Your task to perform on an android device: Search for "panasonic triple a" on ebay, select the first entry, and add it to the cart. Image 0: 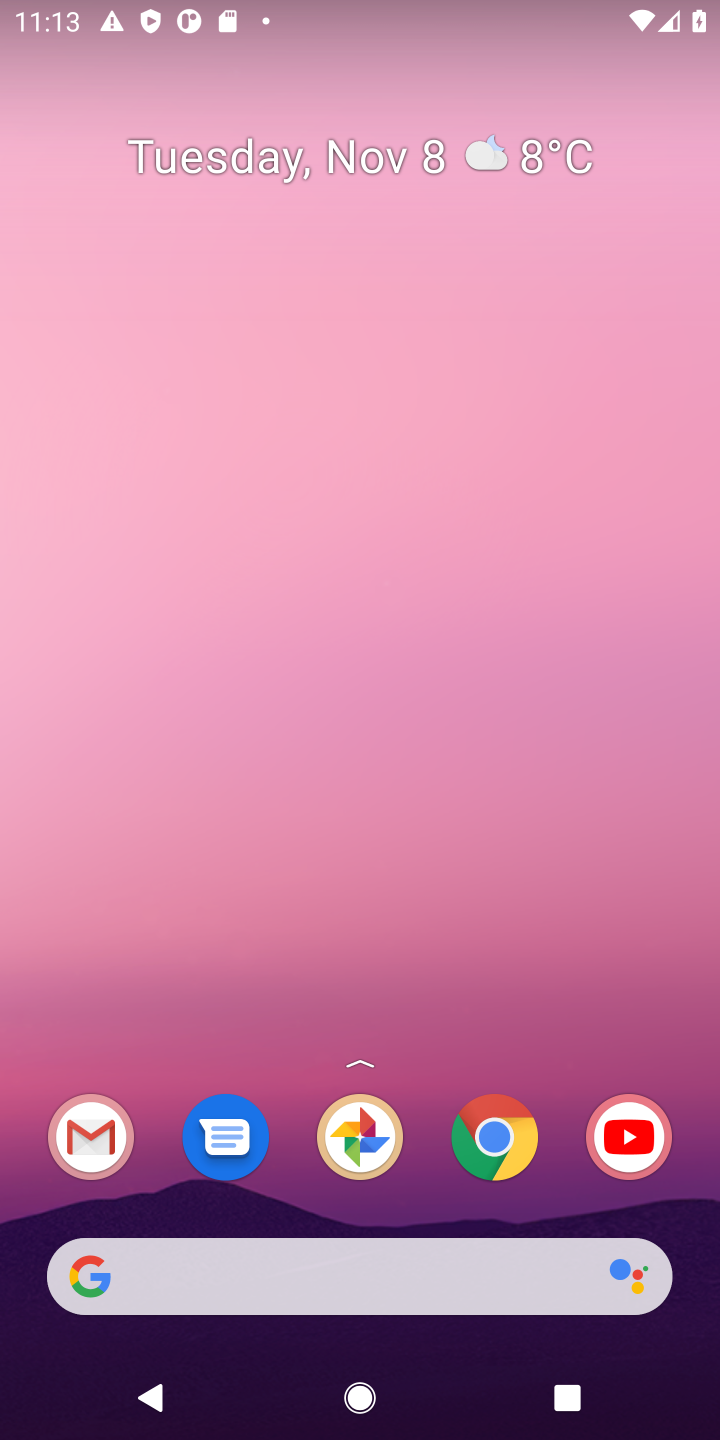
Step 0: click (476, 1139)
Your task to perform on an android device: Search for "panasonic triple a" on ebay, select the first entry, and add it to the cart. Image 1: 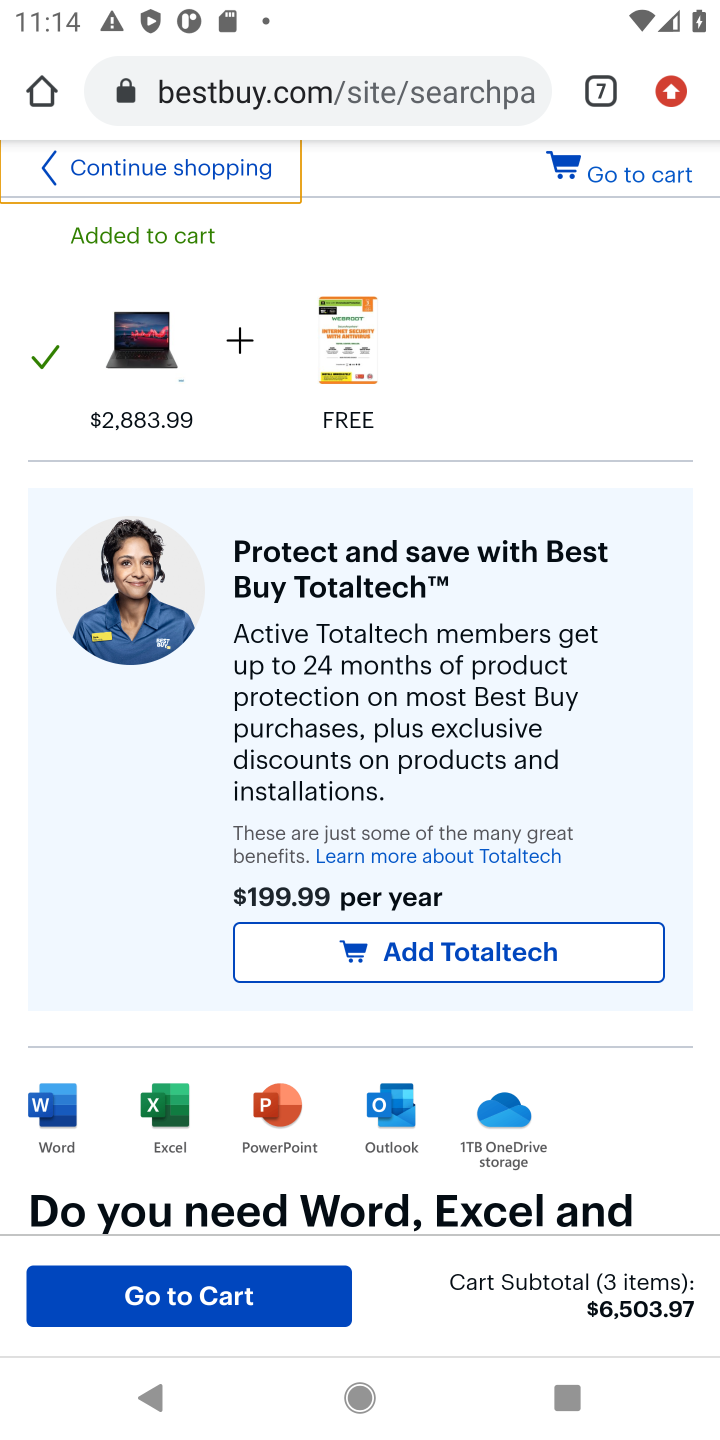
Step 1: click (601, 87)
Your task to perform on an android device: Search for "panasonic triple a" on ebay, select the first entry, and add it to the cart. Image 2: 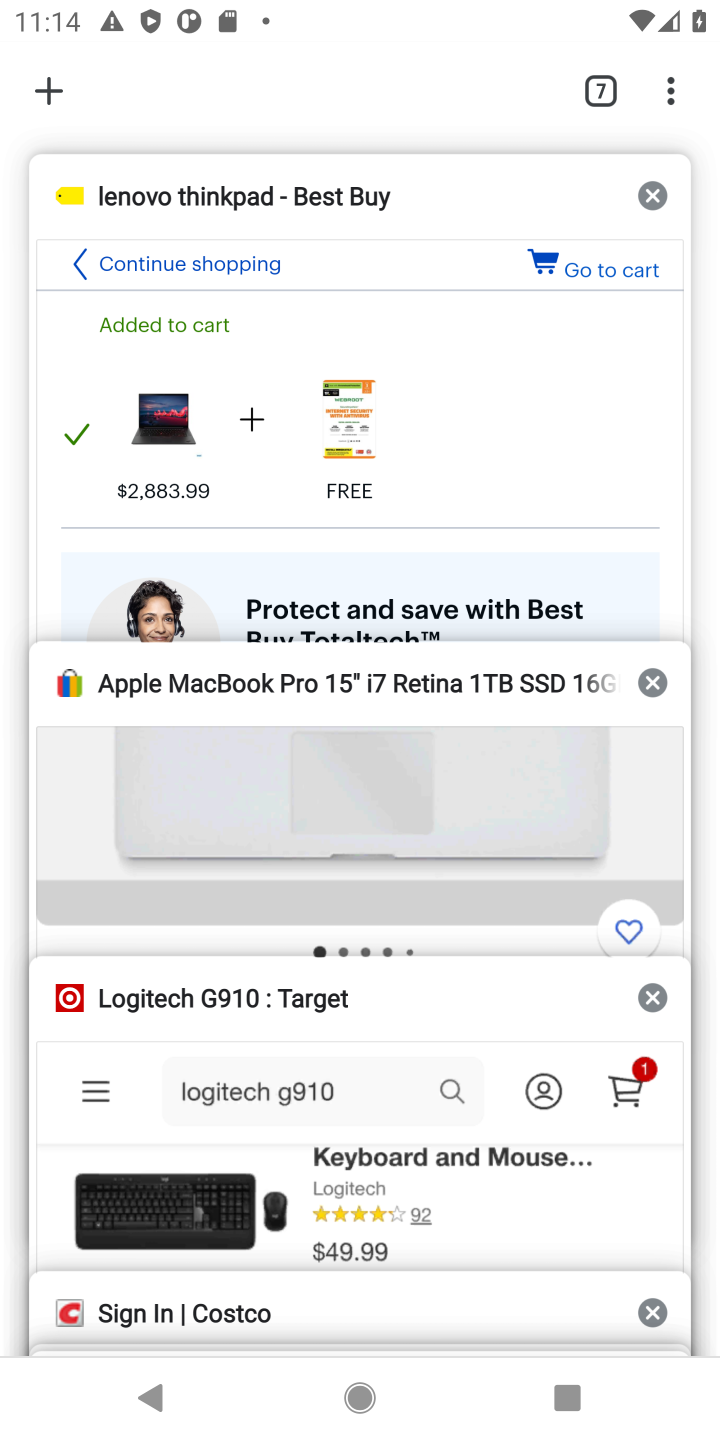
Step 2: click (353, 787)
Your task to perform on an android device: Search for "panasonic triple a" on ebay, select the first entry, and add it to the cart. Image 3: 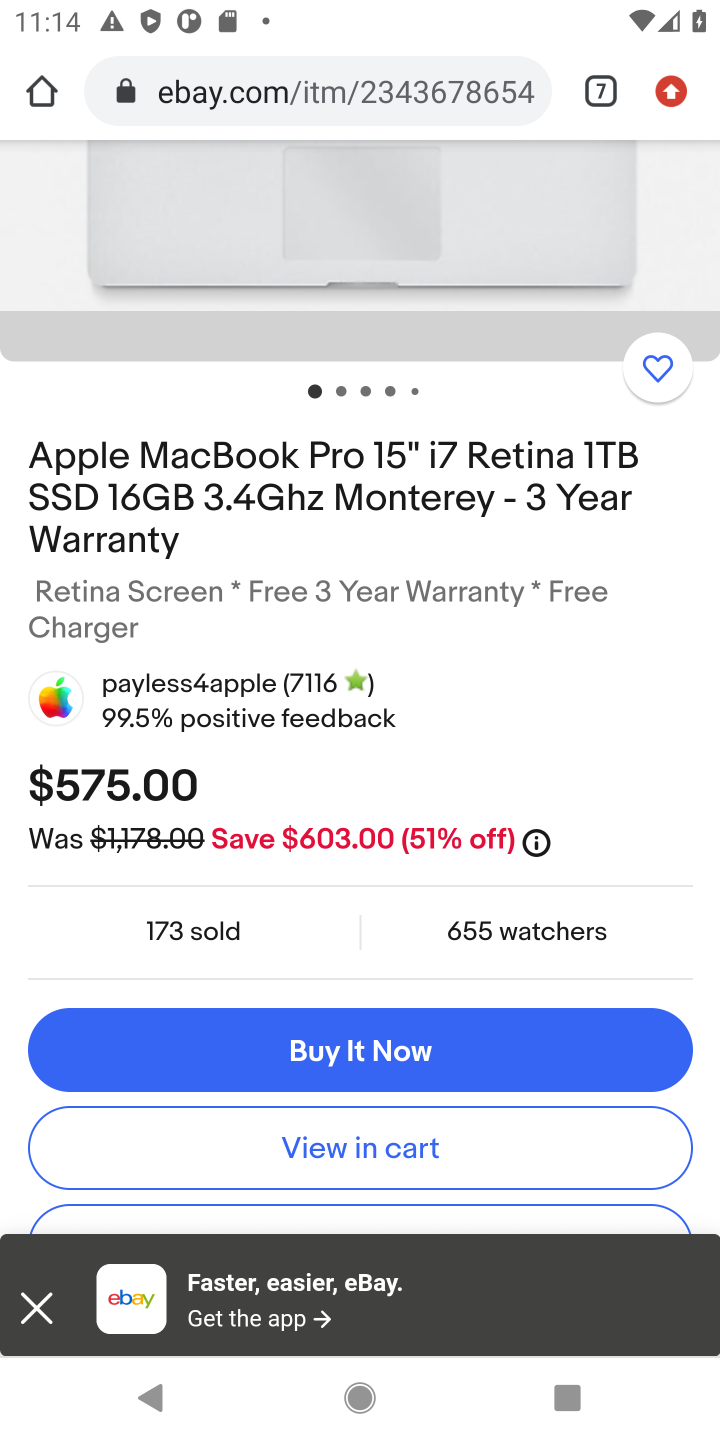
Step 3: drag from (493, 217) to (443, 737)
Your task to perform on an android device: Search for "panasonic triple a" on ebay, select the first entry, and add it to the cart. Image 4: 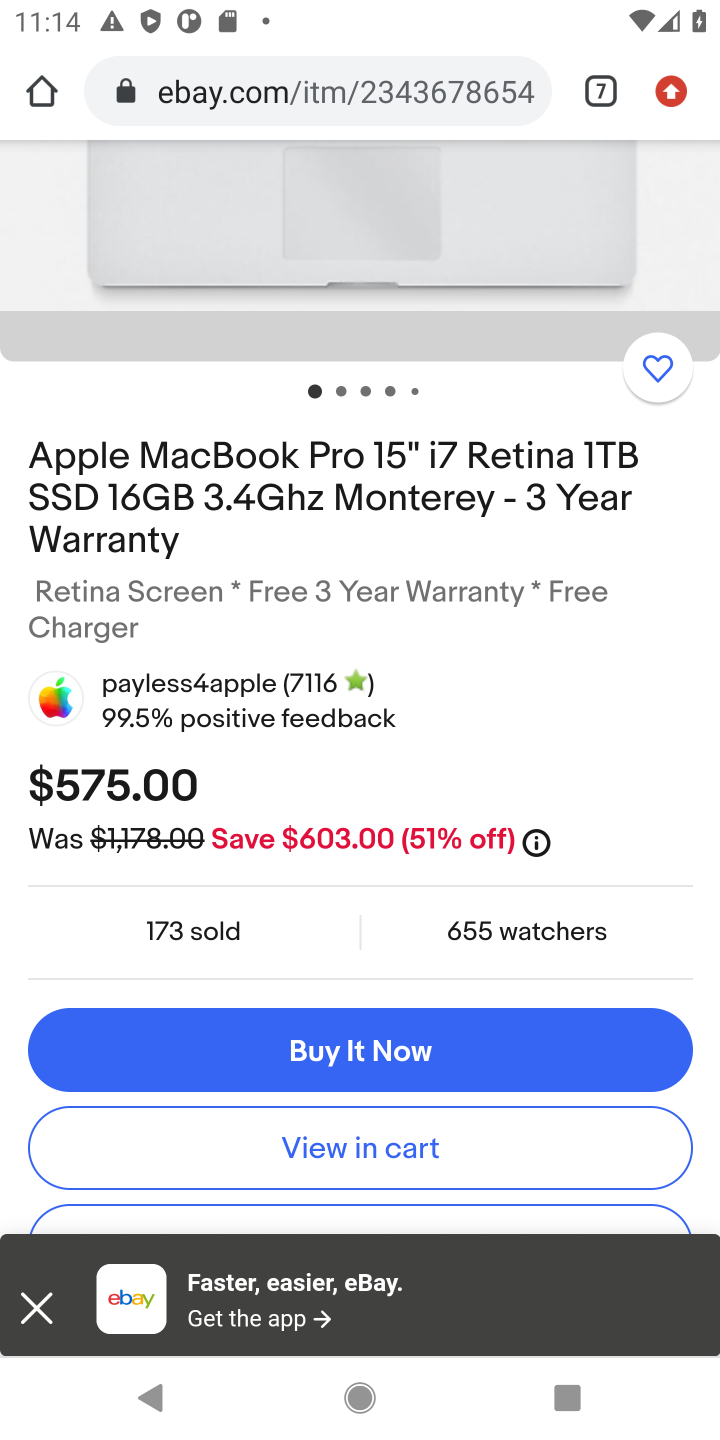
Step 4: drag from (533, 373) to (599, 1174)
Your task to perform on an android device: Search for "panasonic triple a" on ebay, select the first entry, and add it to the cart. Image 5: 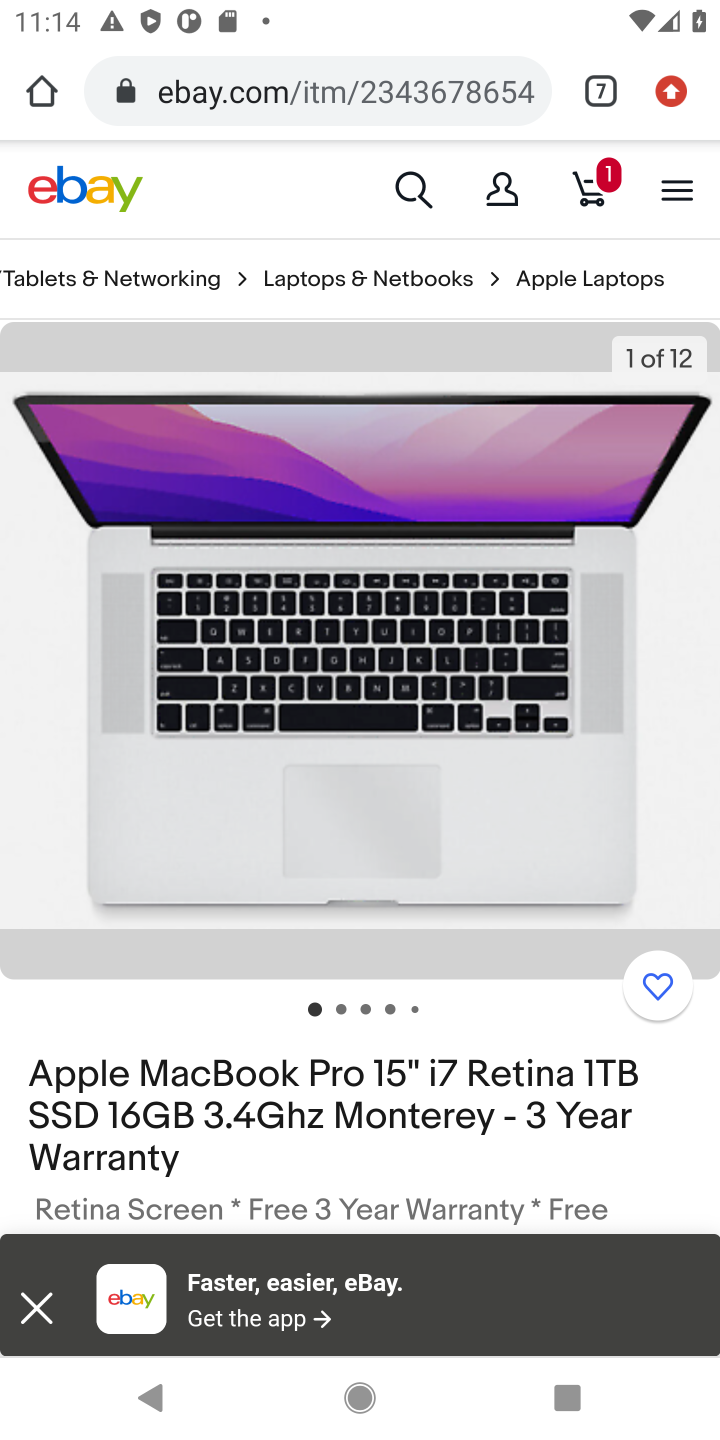
Step 5: click (400, 188)
Your task to perform on an android device: Search for "panasonic triple a" on ebay, select the first entry, and add it to the cart. Image 6: 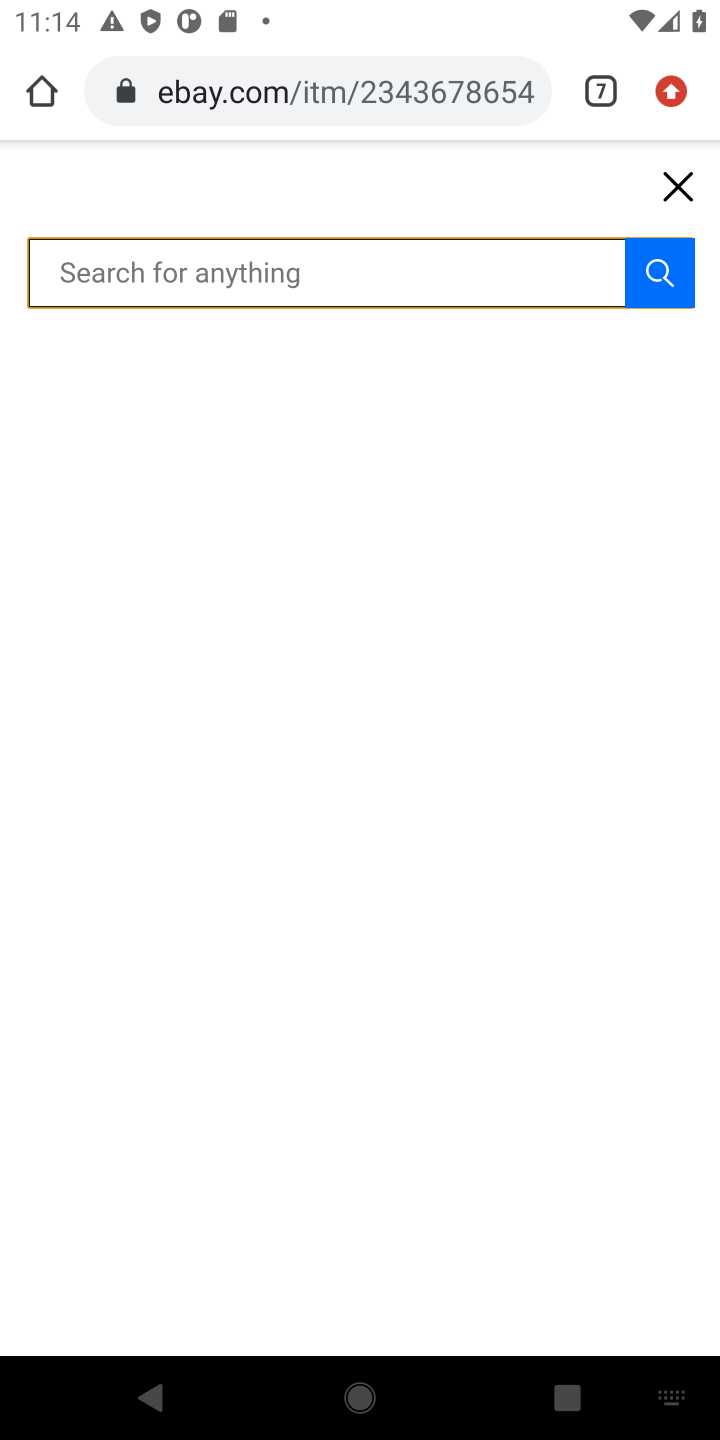
Step 6: type "panasonic triple a"
Your task to perform on an android device: Search for "panasonic triple a" on ebay, select the first entry, and add it to the cart. Image 7: 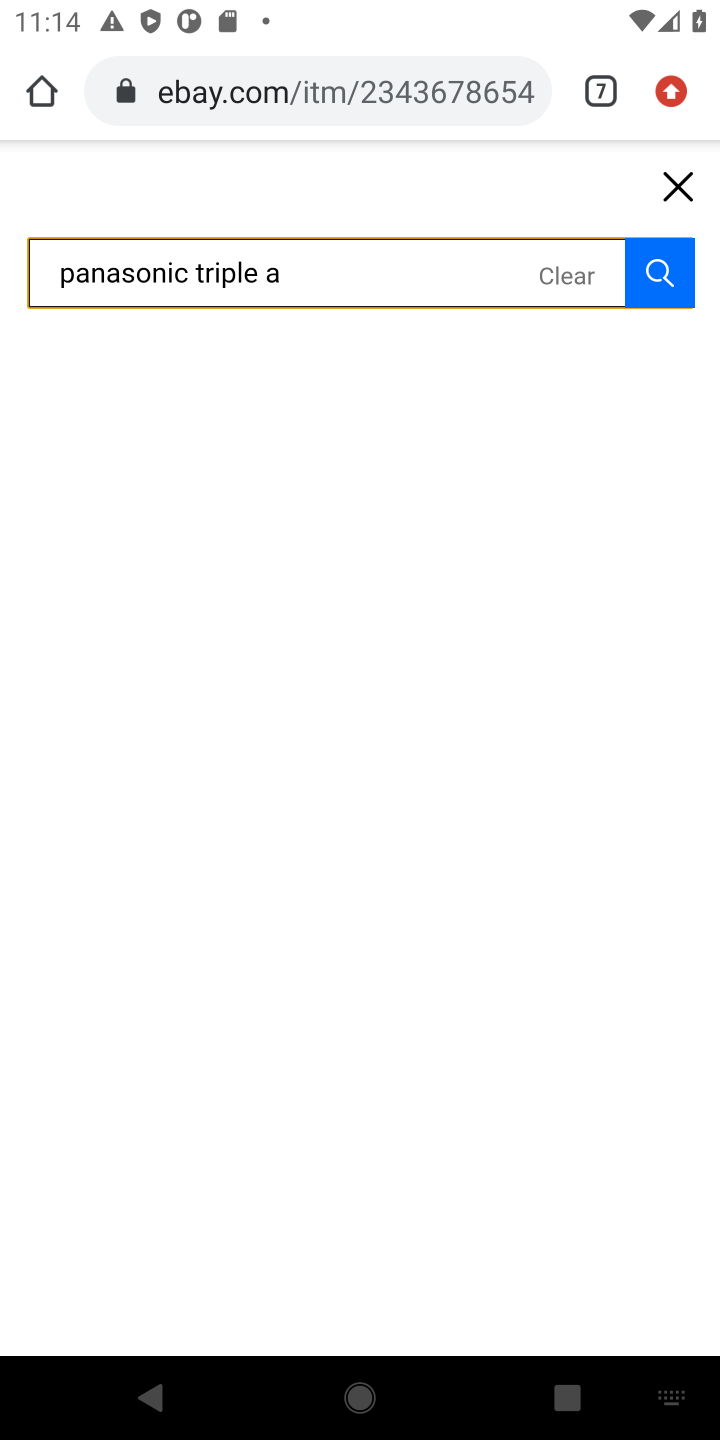
Step 7: click (656, 267)
Your task to perform on an android device: Search for "panasonic triple a" on ebay, select the first entry, and add it to the cart. Image 8: 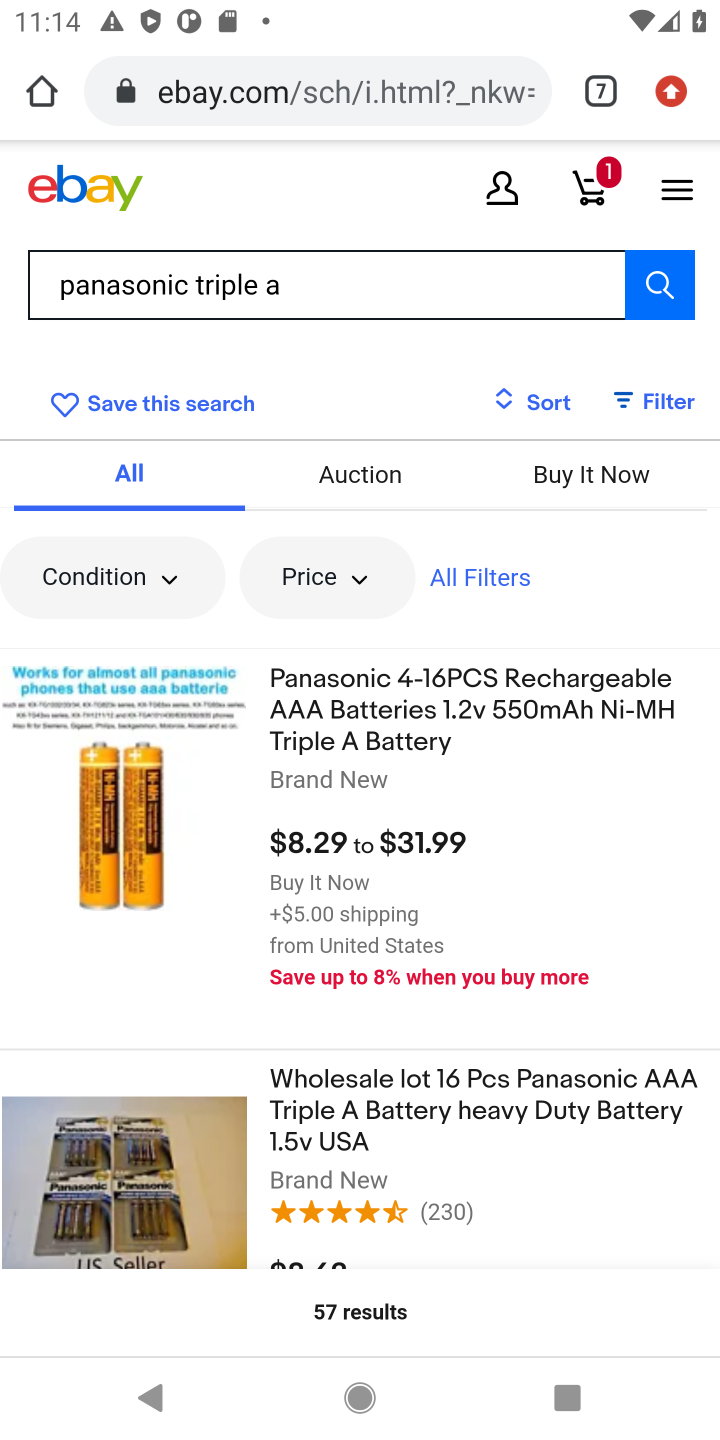
Step 8: click (360, 722)
Your task to perform on an android device: Search for "panasonic triple a" on ebay, select the first entry, and add it to the cart. Image 9: 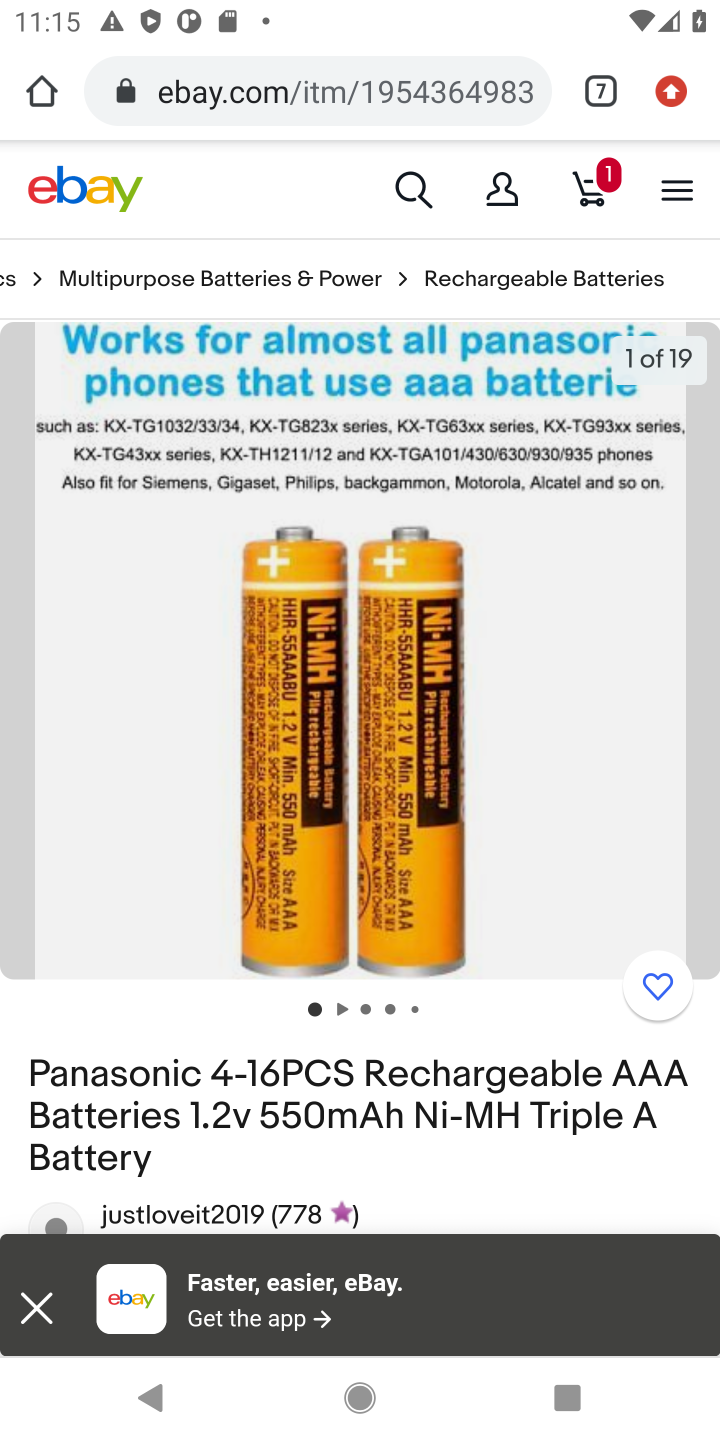
Step 9: click (41, 1315)
Your task to perform on an android device: Search for "panasonic triple a" on ebay, select the first entry, and add it to the cart. Image 10: 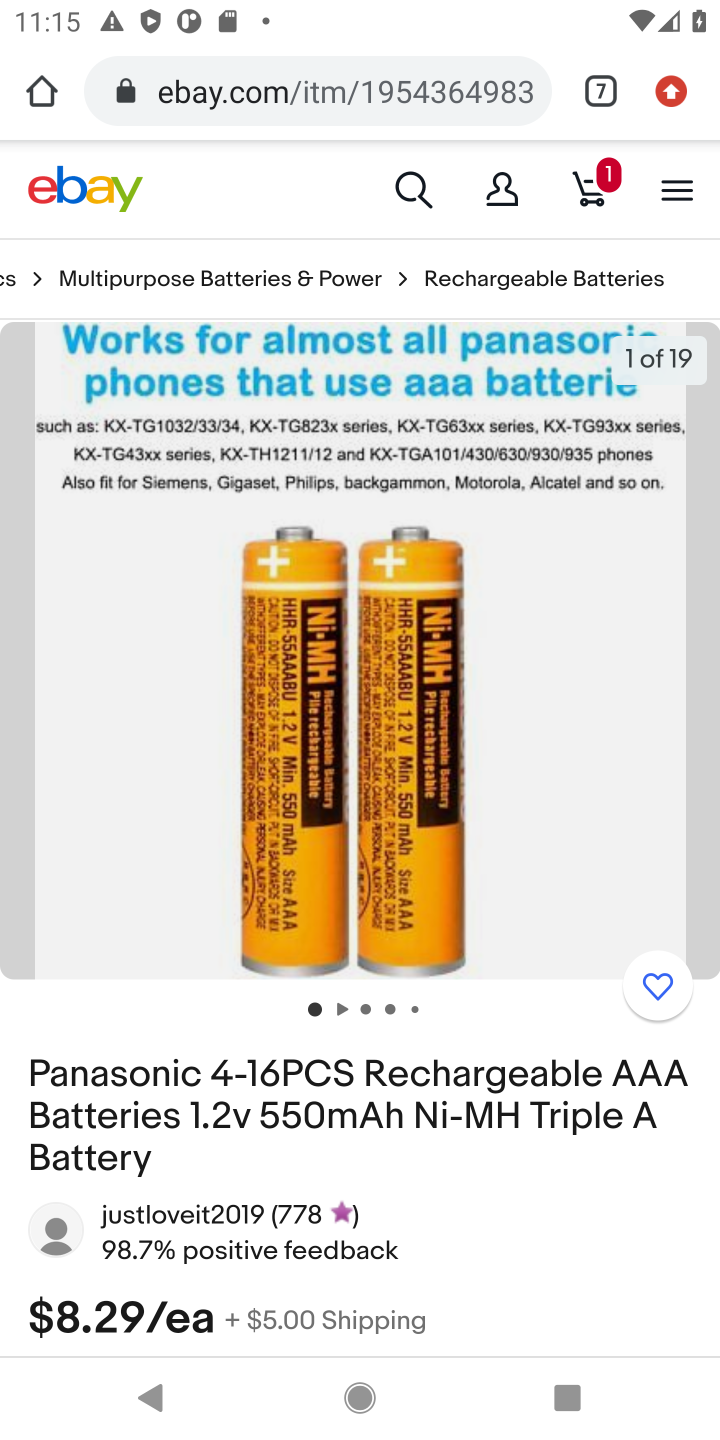
Step 10: drag from (261, 1136) to (349, 387)
Your task to perform on an android device: Search for "panasonic triple a" on ebay, select the first entry, and add it to the cart. Image 11: 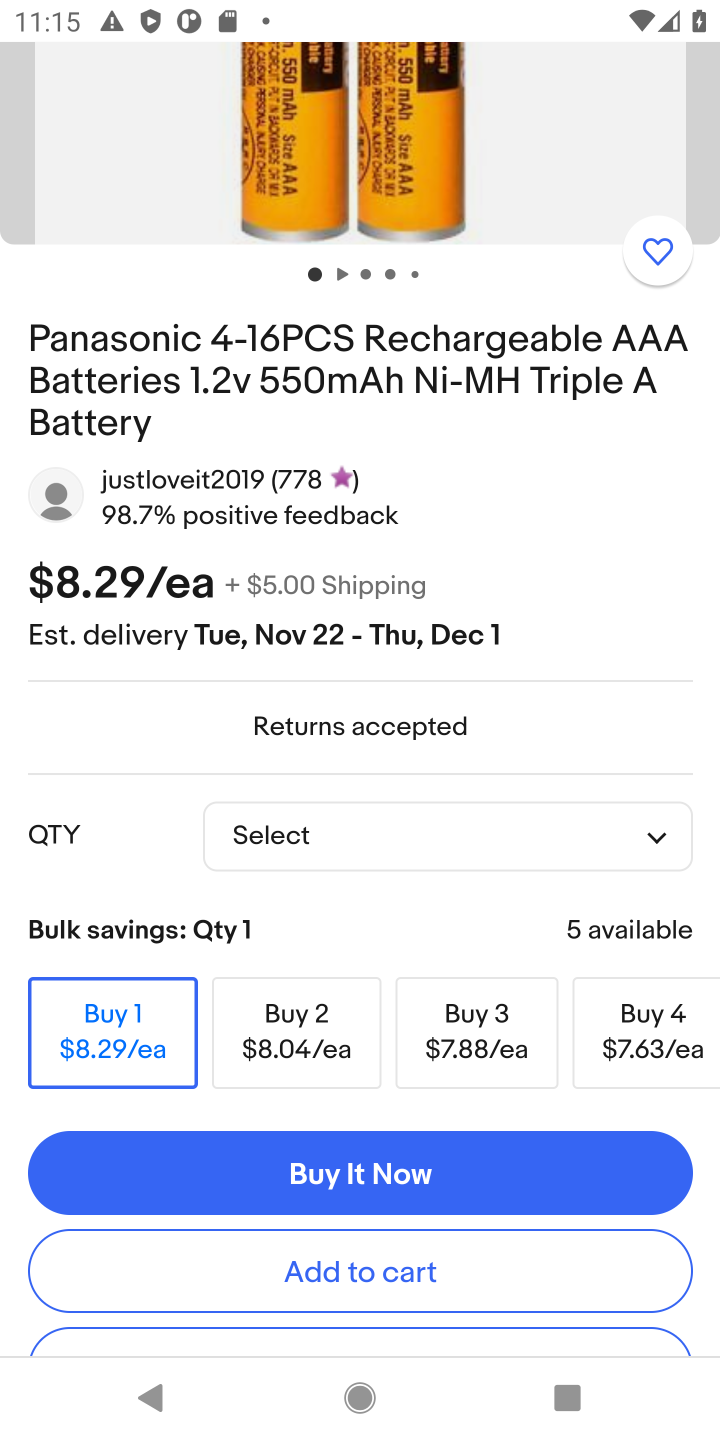
Step 11: click (368, 1267)
Your task to perform on an android device: Search for "panasonic triple a" on ebay, select the first entry, and add it to the cart. Image 12: 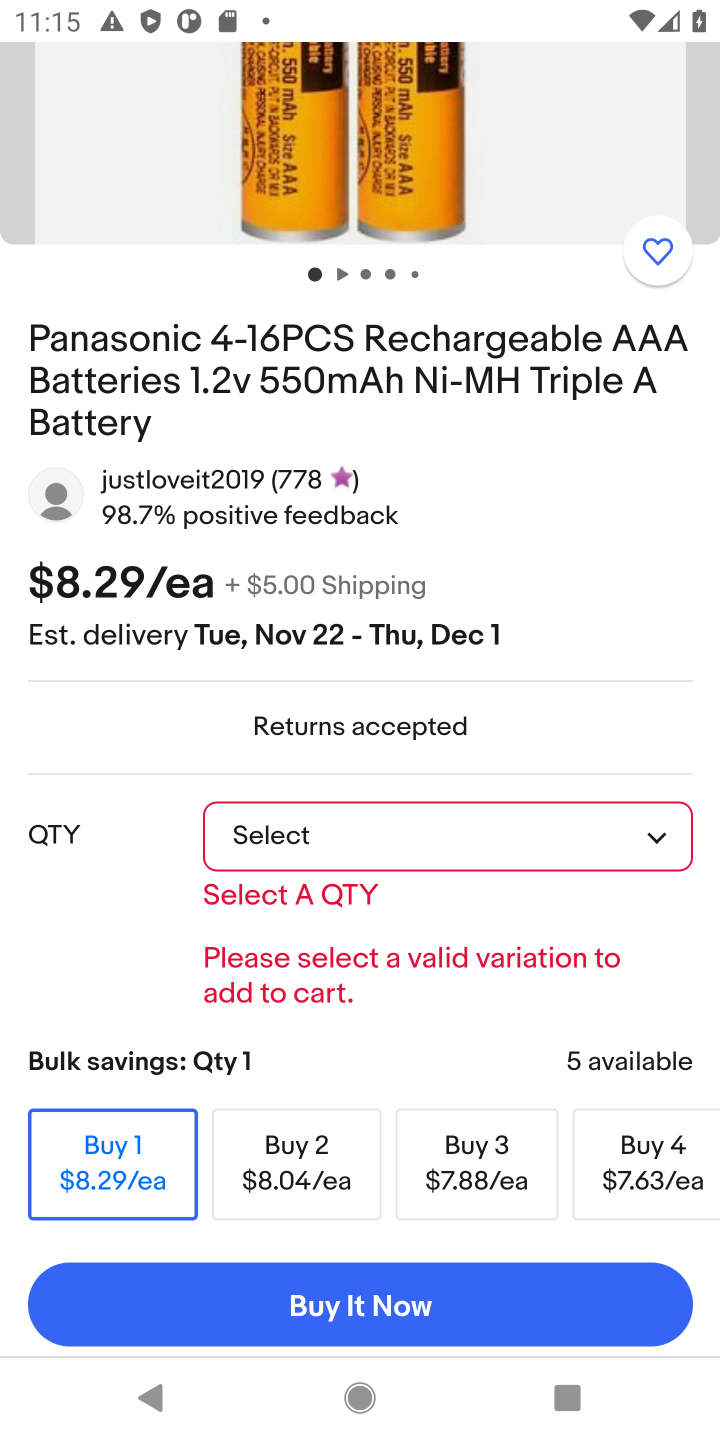
Step 12: click (653, 830)
Your task to perform on an android device: Search for "panasonic triple a" on ebay, select the first entry, and add it to the cart. Image 13: 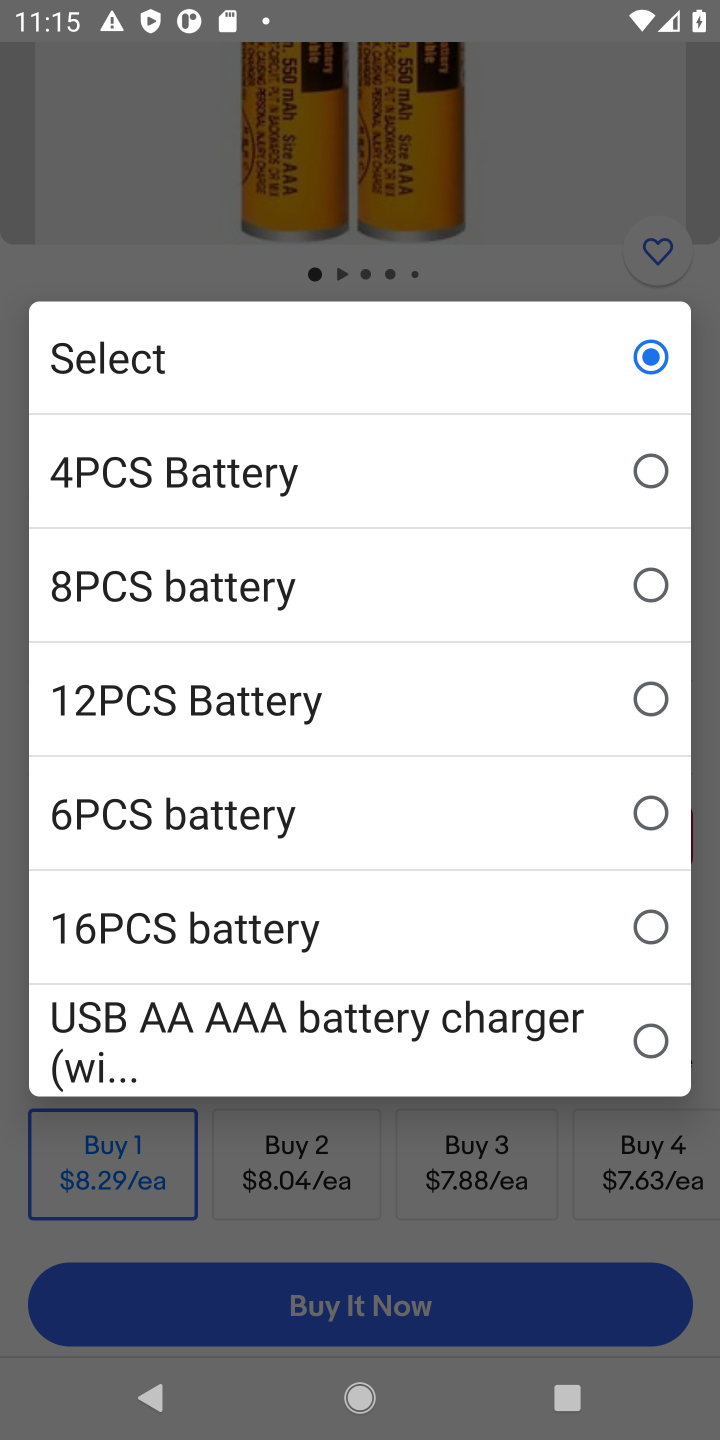
Step 13: click (357, 473)
Your task to perform on an android device: Search for "panasonic triple a" on ebay, select the first entry, and add it to the cart. Image 14: 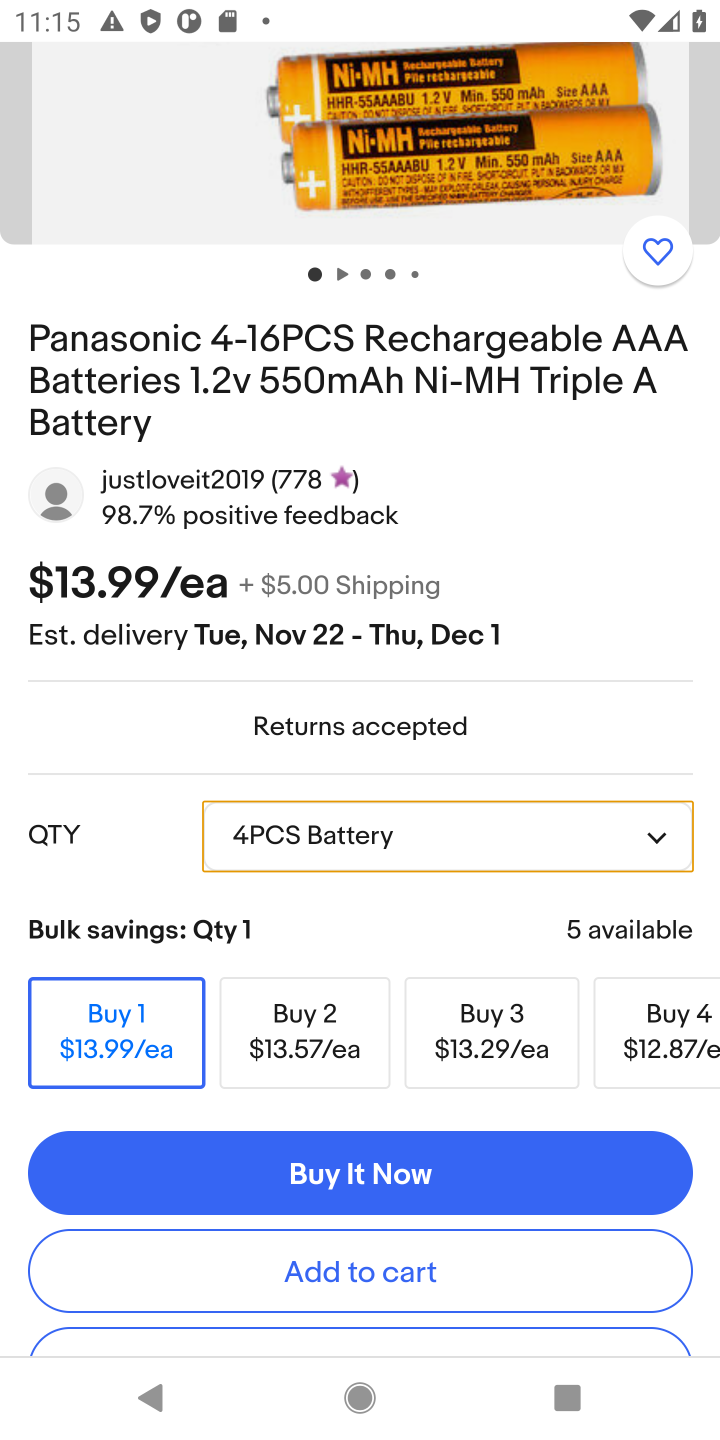
Step 14: click (233, 1286)
Your task to perform on an android device: Search for "panasonic triple a" on ebay, select the first entry, and add it to the cart. Image 15: 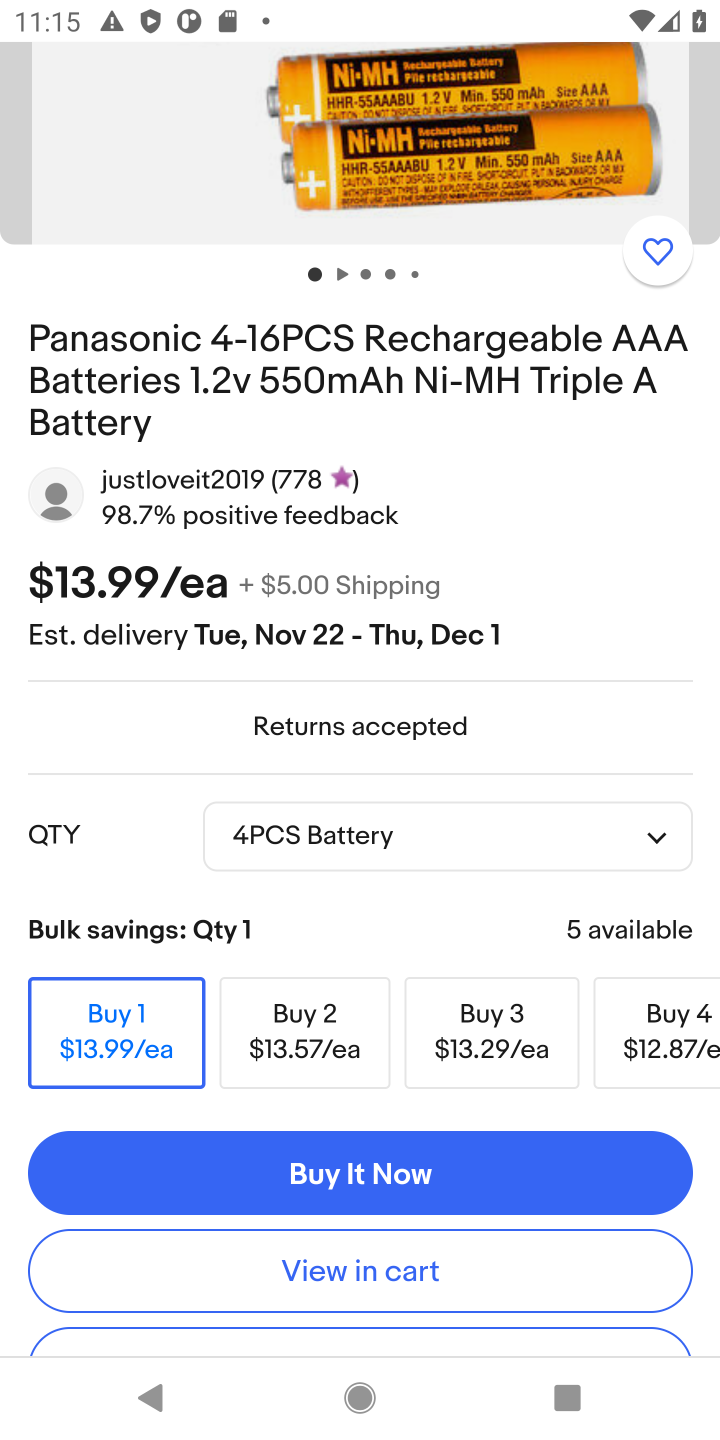
Step 15: task complete